Your task to perform on an android device: check data usage Image 0: 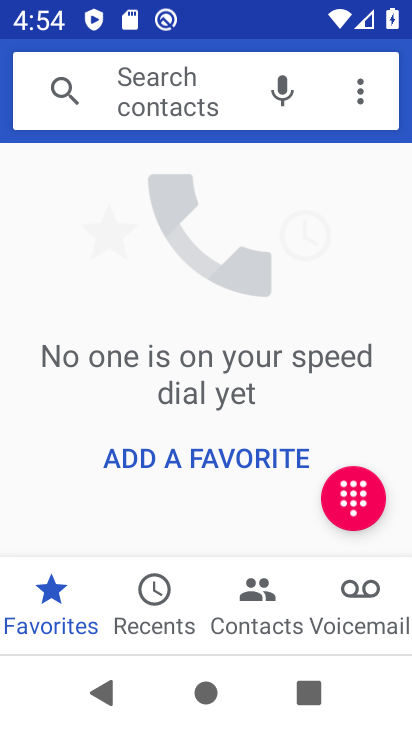
Step 0: press home button
Your task to perform on an android device: check data usage Image 1: 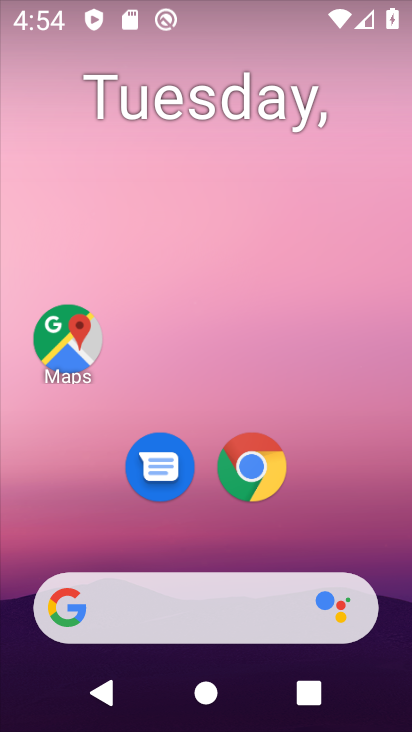
Step 1: drag from (306, 361) to (293, 134)
Your task to perform on an android device: check data usage Image 2: 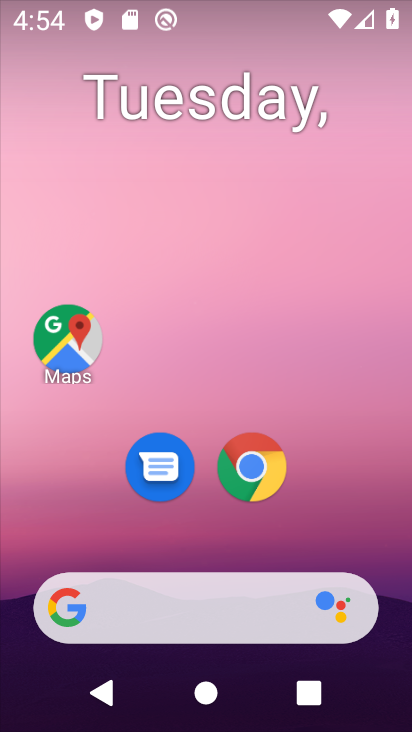
Step 2: drag from (308, 440) to (263, 213)
Your task to perform on an android device: check data usage Image 3: 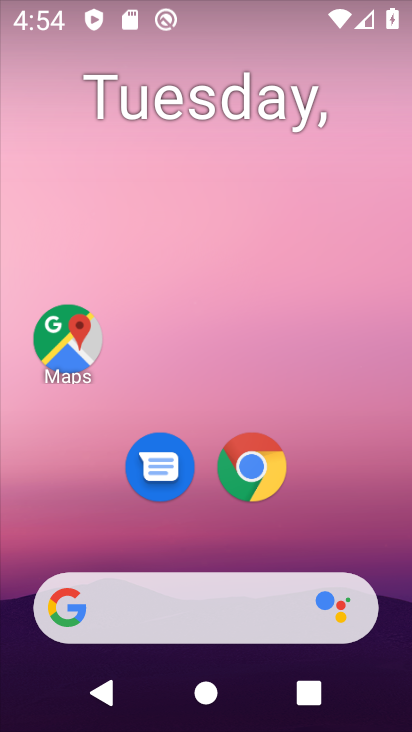
Step 3: drag from (322, 474) to (344, 135)
Your task to perform on an android device: check data usage Image 4: 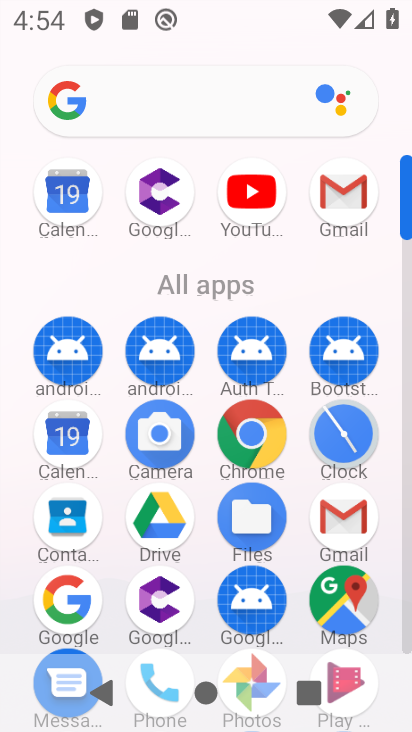
Step 4: drag from (353, 525) to (363, 259)
Your task to perform on an android device: check data usage Image 5: 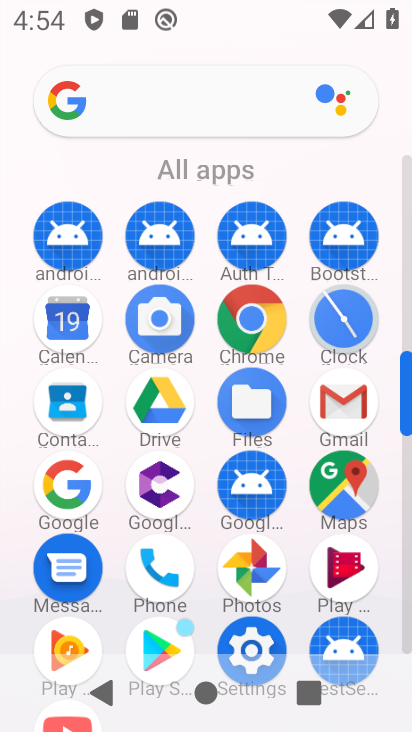
Step 5: click (250, 640)
Your task to perform on an android device: check data usage Image 6: 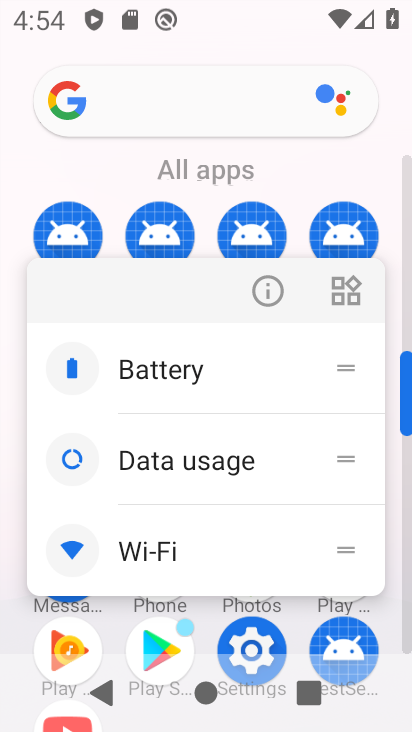
Step 6: click (251, 639)
Your task to perform on an android device: check data usage Image 7: 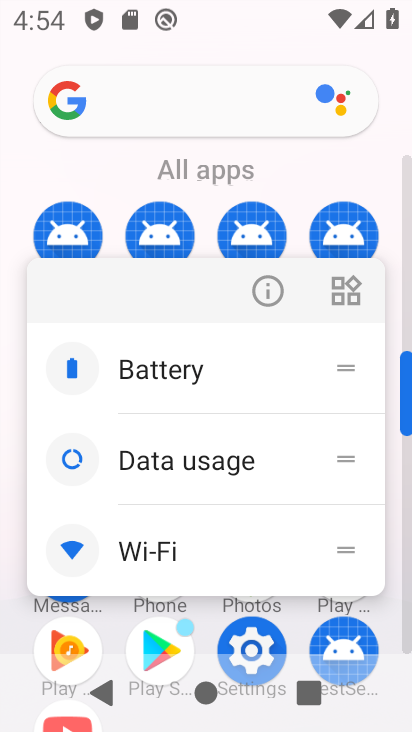
Step 7: click (190, 469)
Your task to perform on an android device: check data usage Image 8: 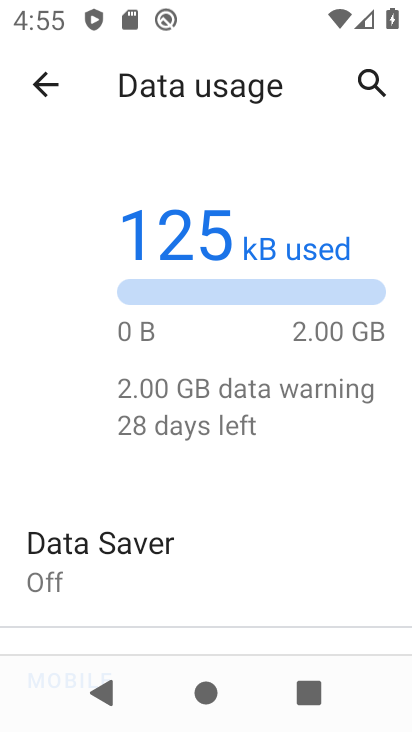
Step 8: task complete